Your task to perform on an android device: Toggle the flashlight Image 0: 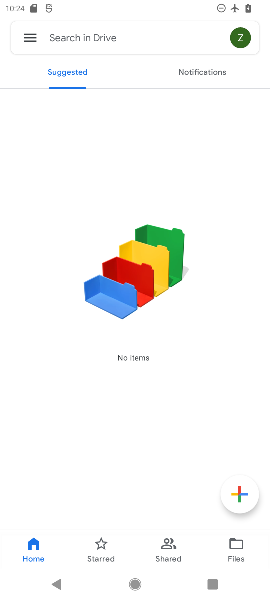
Step 0: press home button
Your task to perform on an android device: Toggle the flashlight Image 1: 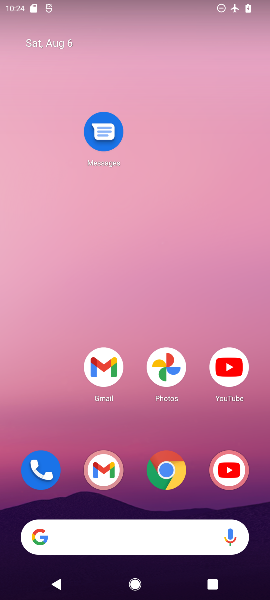
Step 1: drag from (183, 13) to (164, 444)
Your task to perform on an android device: Toggle the flashlight Image 2: 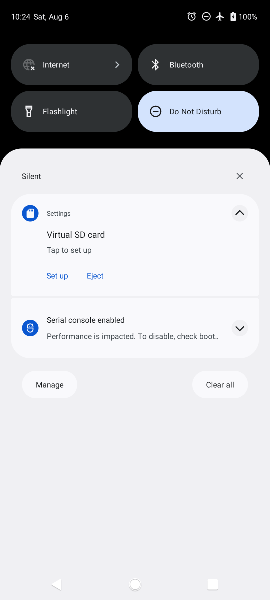
Step 2: click (95, 116)
Your task to perform on an android device: Toggle the flashlight Image 3: 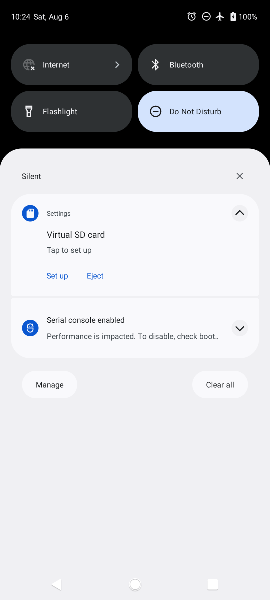
Step 3: task complete